Your task to perform on an android device: open app "Grab" (install if not already installed) Image 0: 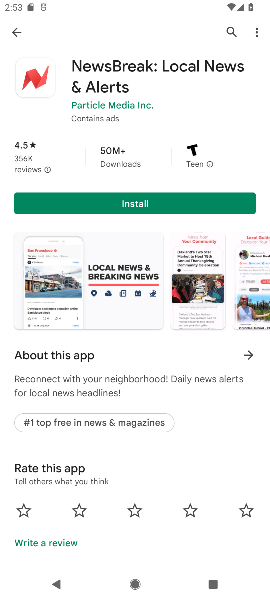
Step 0: press home button
Your task to perform on an android device: open app "Grab" (install if not already installed) Image 1: 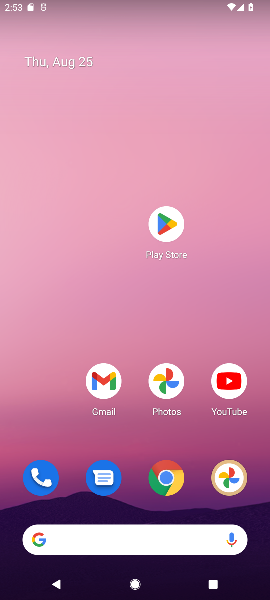
Step 1: click (169, 224)
Your task to perform on an android device: open app "Grab" (install if not already installed) Image 2: 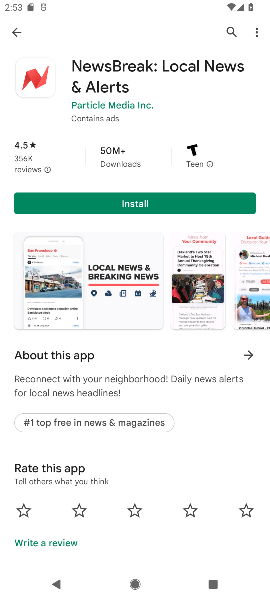
Step 2: click (234, 29)
Your task to perform on an android device: open app "Grab" (install if not already installed) Image 3: 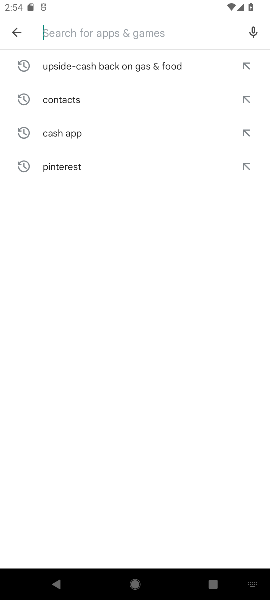
Step 3: type "Grab"
Your task to perform on an android device: open app "Grab" (install if not already installed) Image 4: 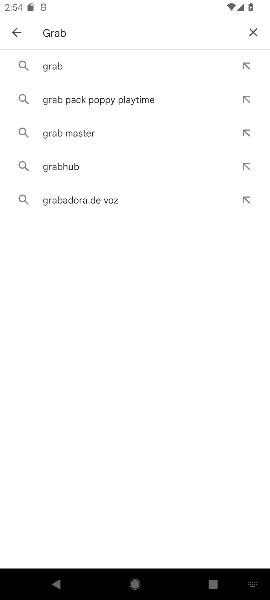
Step 4: click (41, 62)
Your task to perform on an android device: open app "Grab" (install if not already installed) Image 5: 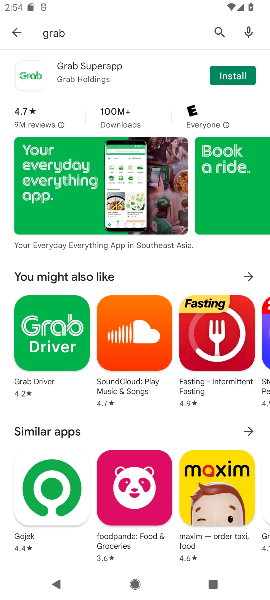
Step 5: click (238, 77)
Your task to perform on an android device: open app "Grab" (install if not already installed) Image 6: 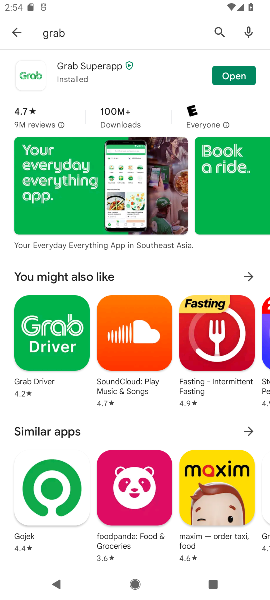
Step 6: click (237, 76)
Your task to perform on an android device: open app "Grab" (install if not already installed) Image 7: 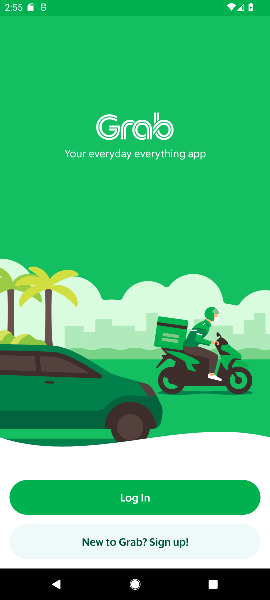
Step 7: task complete